Your task to perform on an android device: toggle sleep mode Image 0: 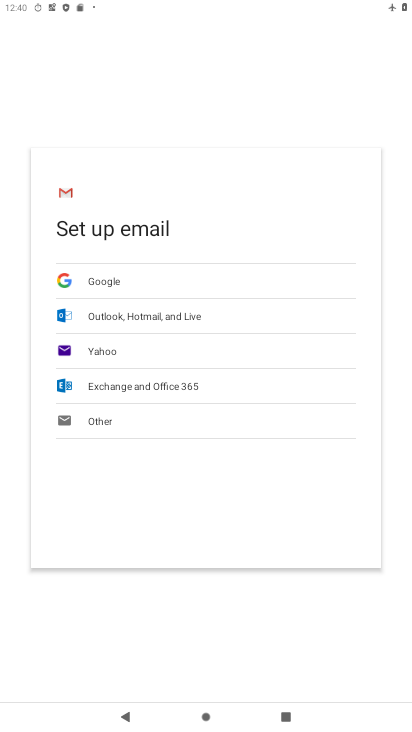
Step 0: press home button
Your task to perform on an android device: toggle sleep mode Image 1: 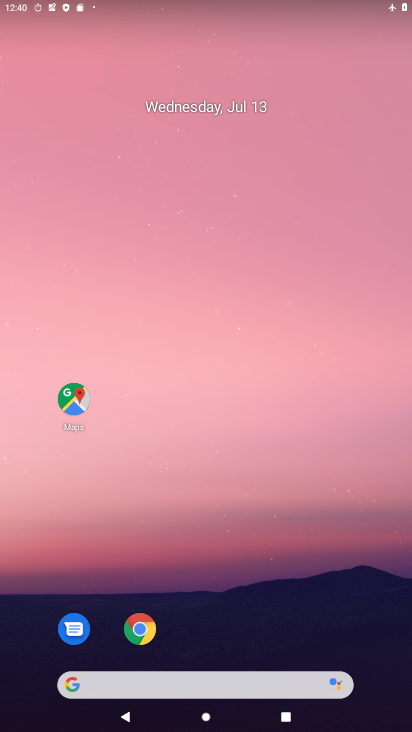
Step 1: drag from (200, 642) to (198, 218)
Your task to perform on an android device: toggle sleep mode Image 2: 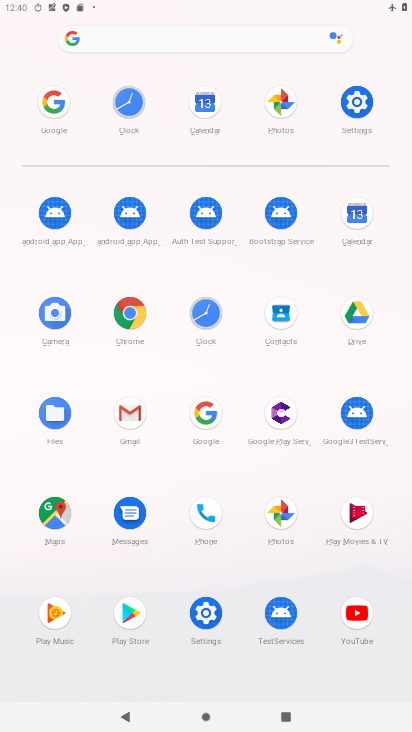
Step 2: click (342, 110)
Your task to perform on an android device: toggle sleep mode Image 3: 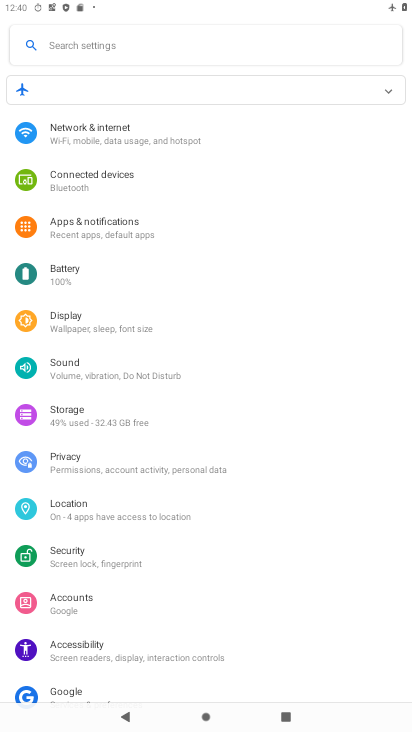
Step 3: click (97, 310)
Your task to perform on an android device: toggle sleep mode Image 4: 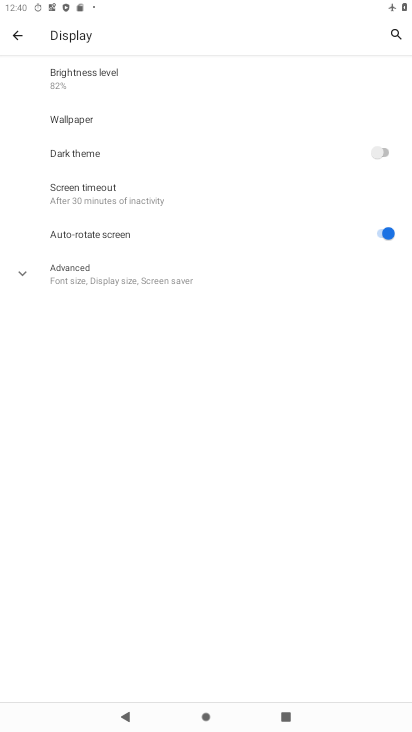
Step 4: click (123, 194)
Your task to perform on an android device: toggle sleep mode Image 5: 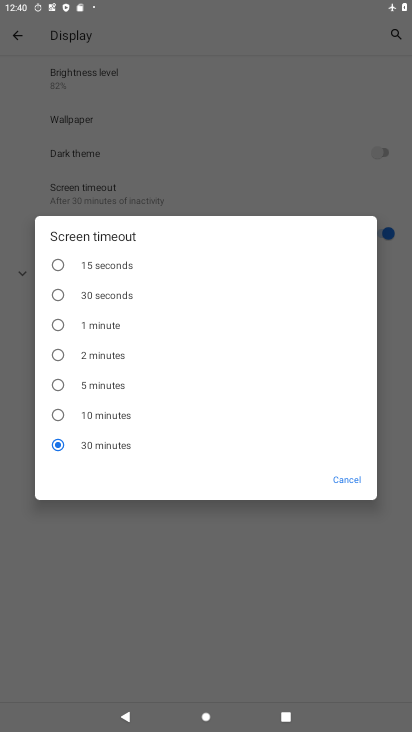
Step 5: click (109, 290)
Your task to perform on an android device: toggle sleep mode Image 6: 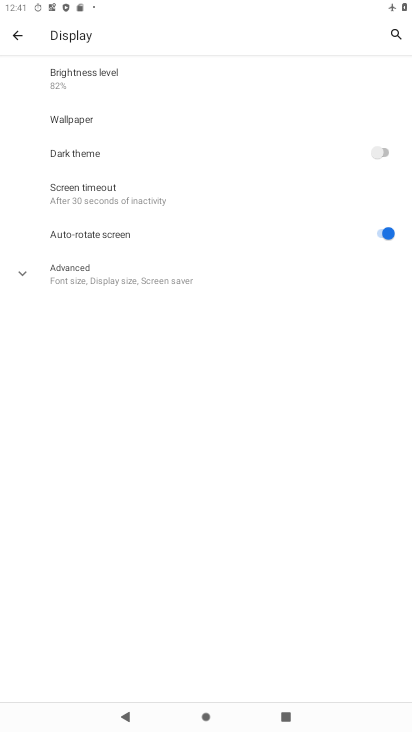
Step 6: task complete